Your task to perform on an android device: check out phone information Image 0: 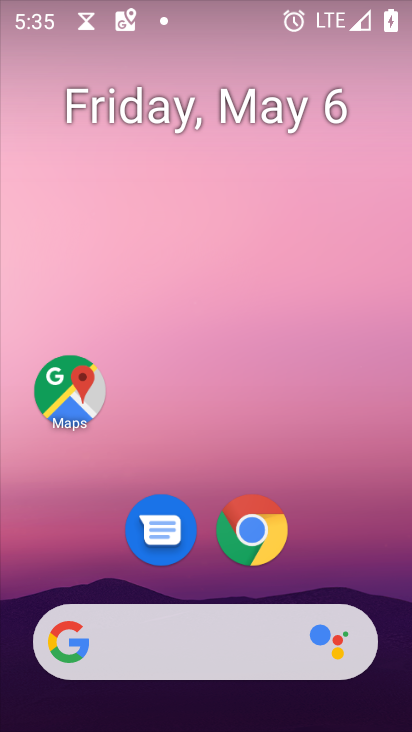
Step 0: drag from (257, 63) to (232, 8)
Your task to perform on an android device: check out phone information Image 1: 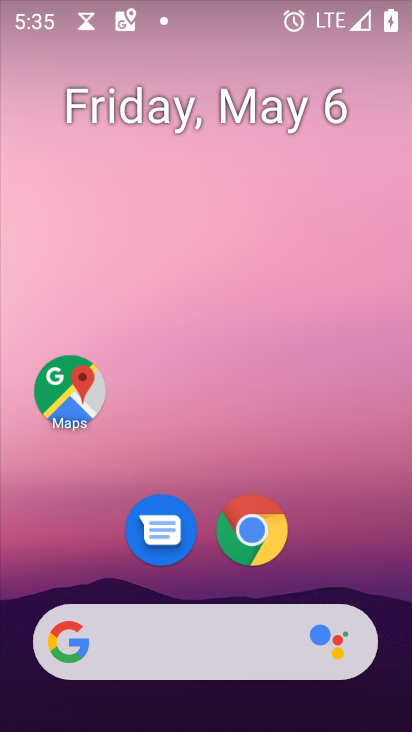
Step 1: drag from (325, 418) to (267, 33)
Your task to perform on an android device: check out phone information Image 2: 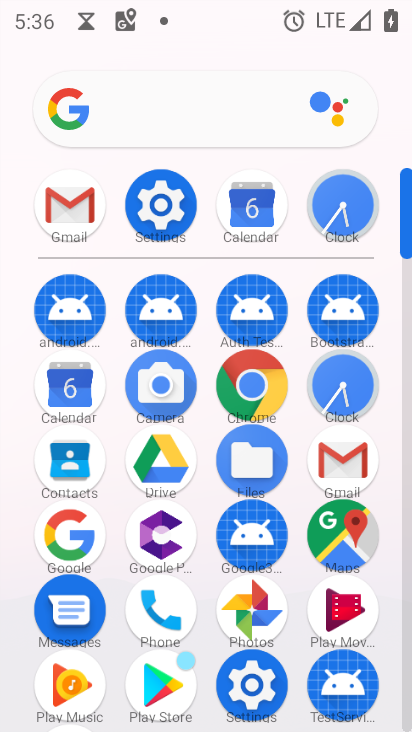
Step 2: click (258, 688)
Your task to perform on an android device: check out phone information Image 3: 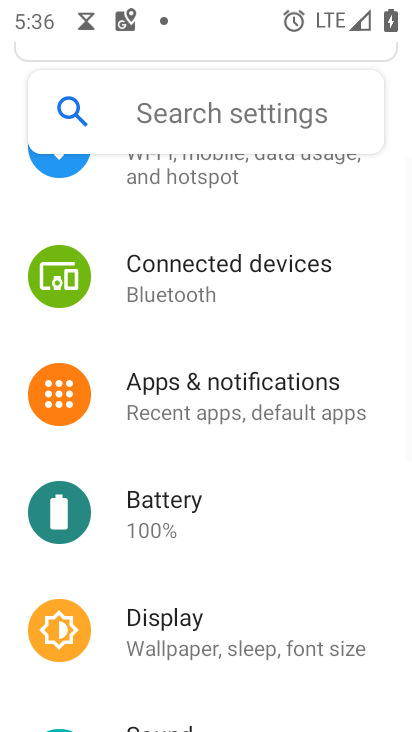
Step 3: drag from (273, 608) to (203, 117)
Your task to perform on an android device: check out phone information Image 4: 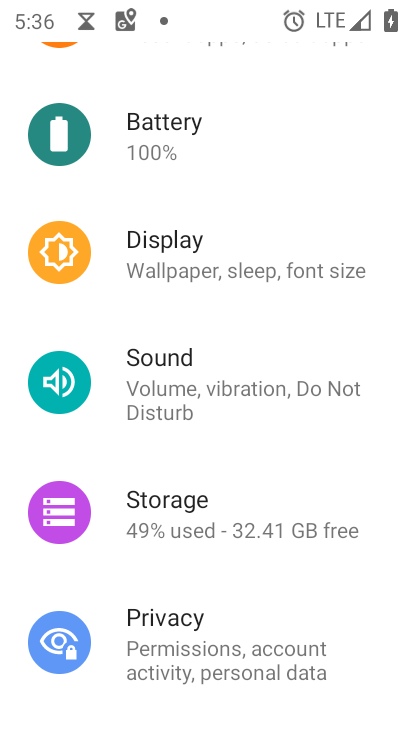
Step 4: drag from (191, 590) to (204, 159)
Your task to perform on an android device: check out phone information Image 5: 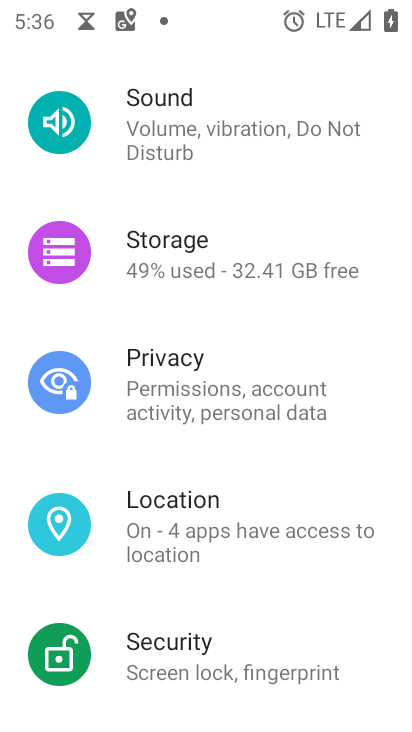
Step 5: drag from (210, 630) to (218, 115)
Your task to perform on an android device: check out phone information Image 6: 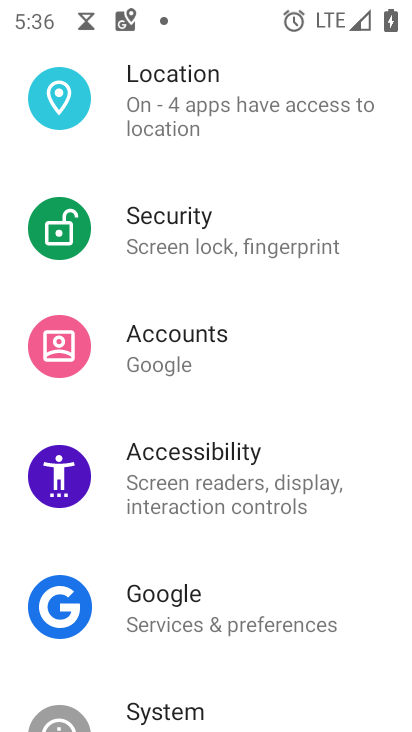
Step 6: drag from (213, 653) to (191, 101)
Your task to perform on an android device: check out phone information Image 7: 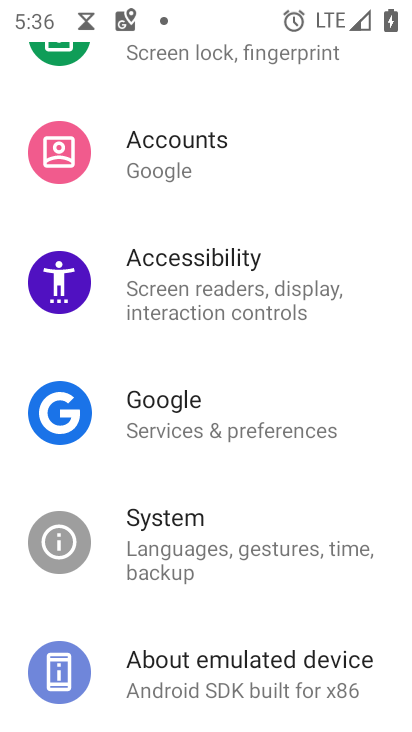
Step 7: click (219, 666)
Your task to perform on an android device: check out phone information Image 8: 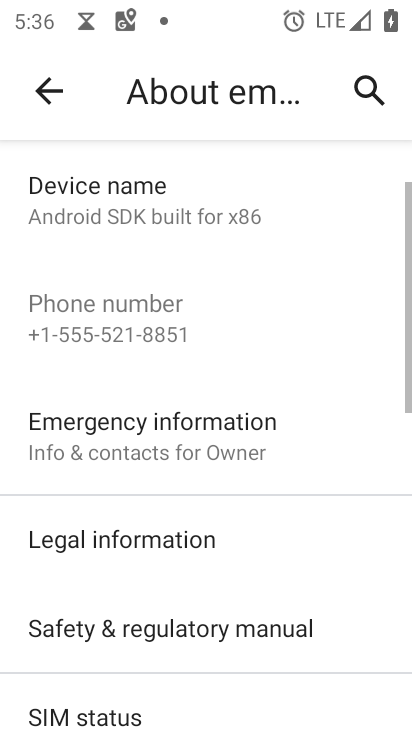
Step 8: task complete